Your task to perform on an android device: Add "lenovo thinkpad" to the cart on newegg Image 0: 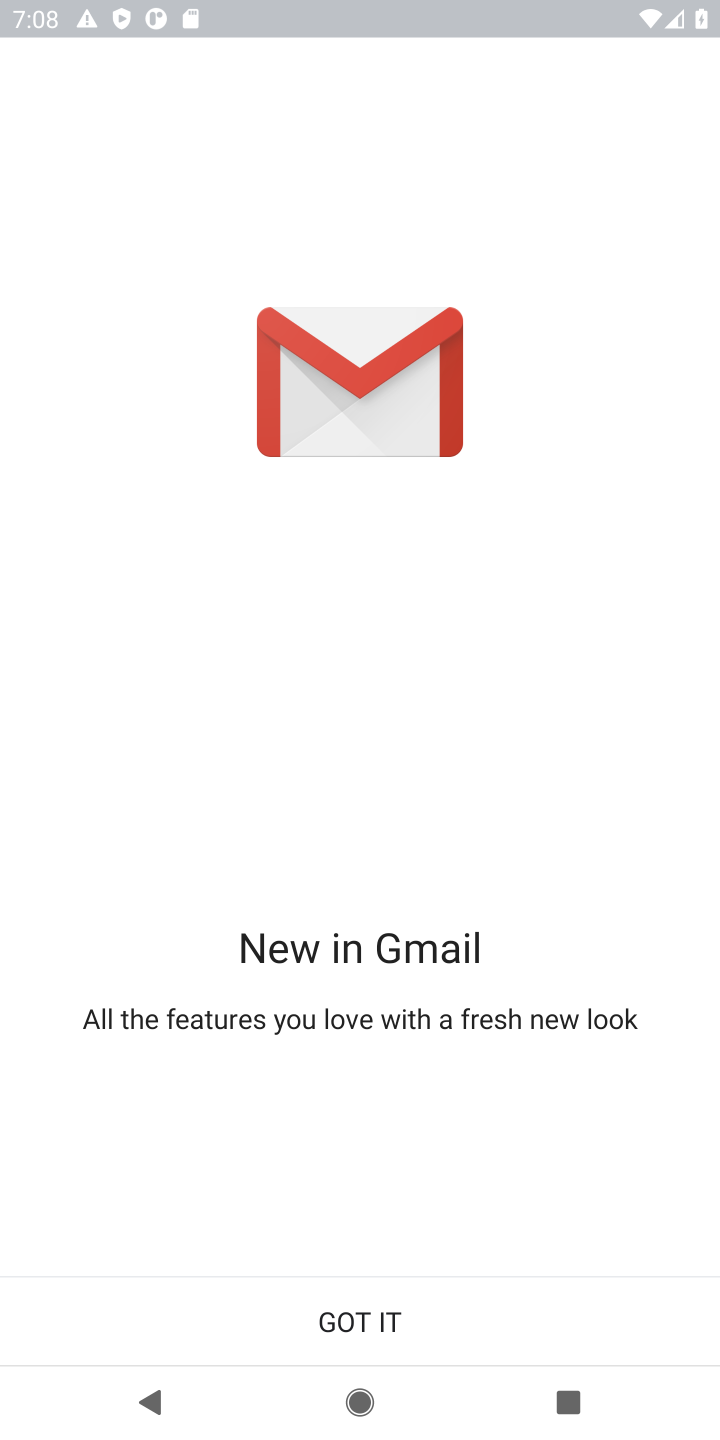
Step 0: press home button
Your task to perform on an android device: Add "lenovo thinkpad" to the cart on newegg Image 1: 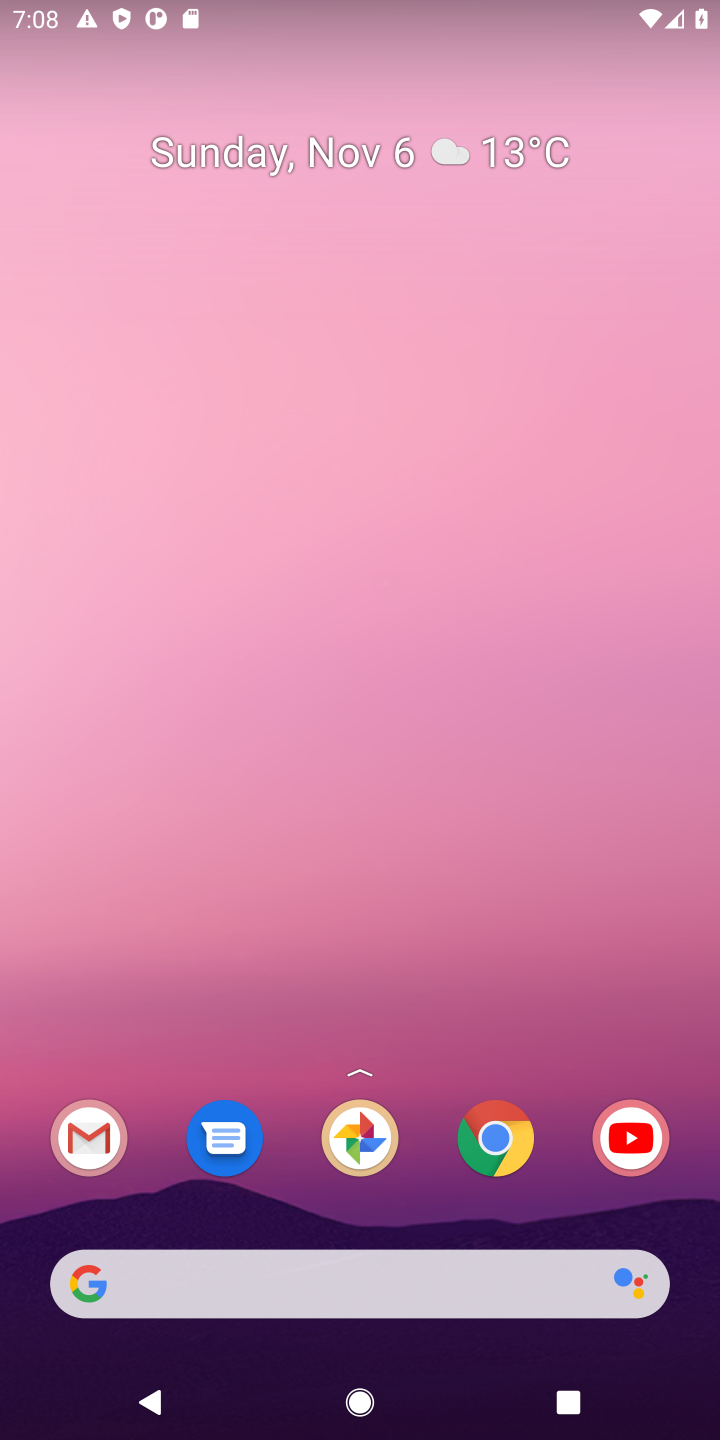
Step 1: click (486, 1121)
Your task to perform on an android device: Add "lenovo thinkpad" to the cart on newegg Image 2: 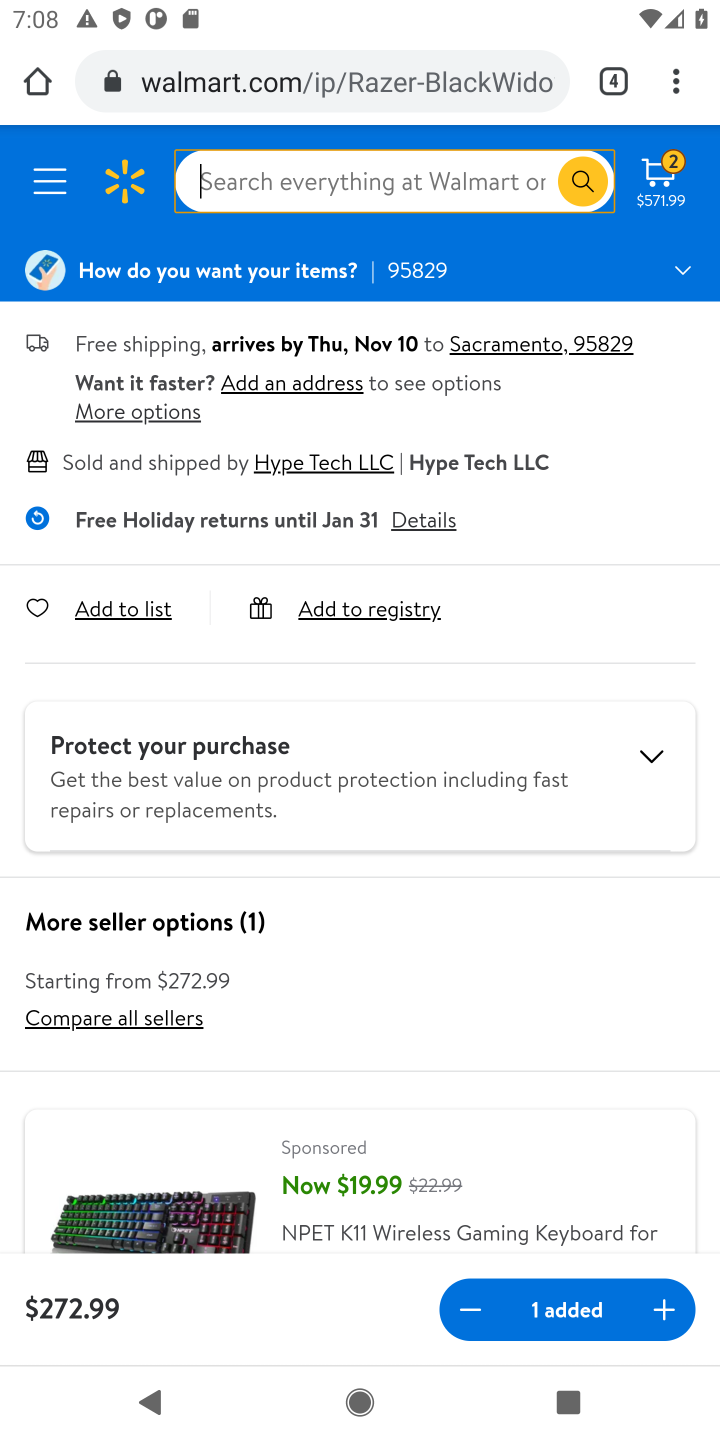
Step 2: click (590, 87)
Your task to perform on an android device: Add "lenovo thinkpad" to the cart on newegg Image 3: 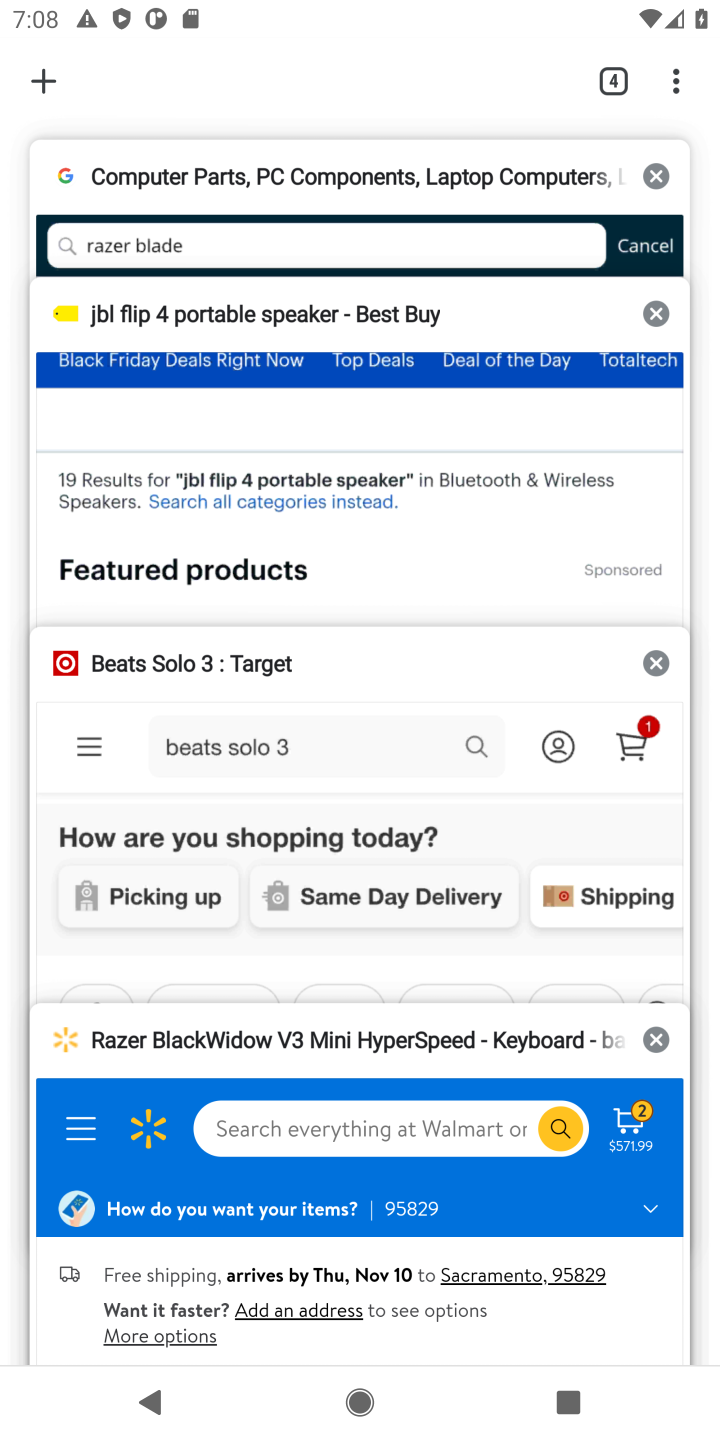
Step 3: click (38, 80)
Your task to perform on an android device: Add "lenovo thinkpad" to the cart on newegg Image 4: 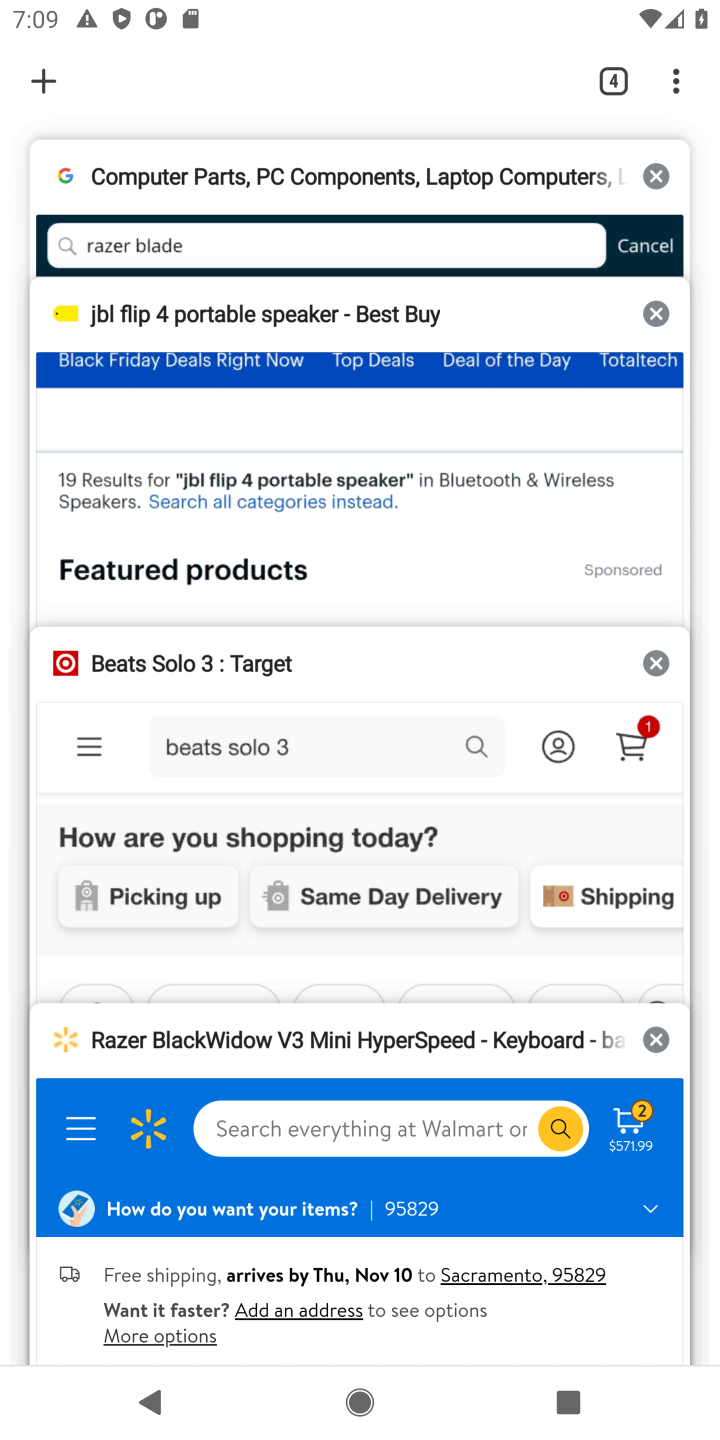
Step 4: click (56, 80)
Your task to perform on an android device: Add "lenovo thinkpad" to the cart on newegg Image 5: 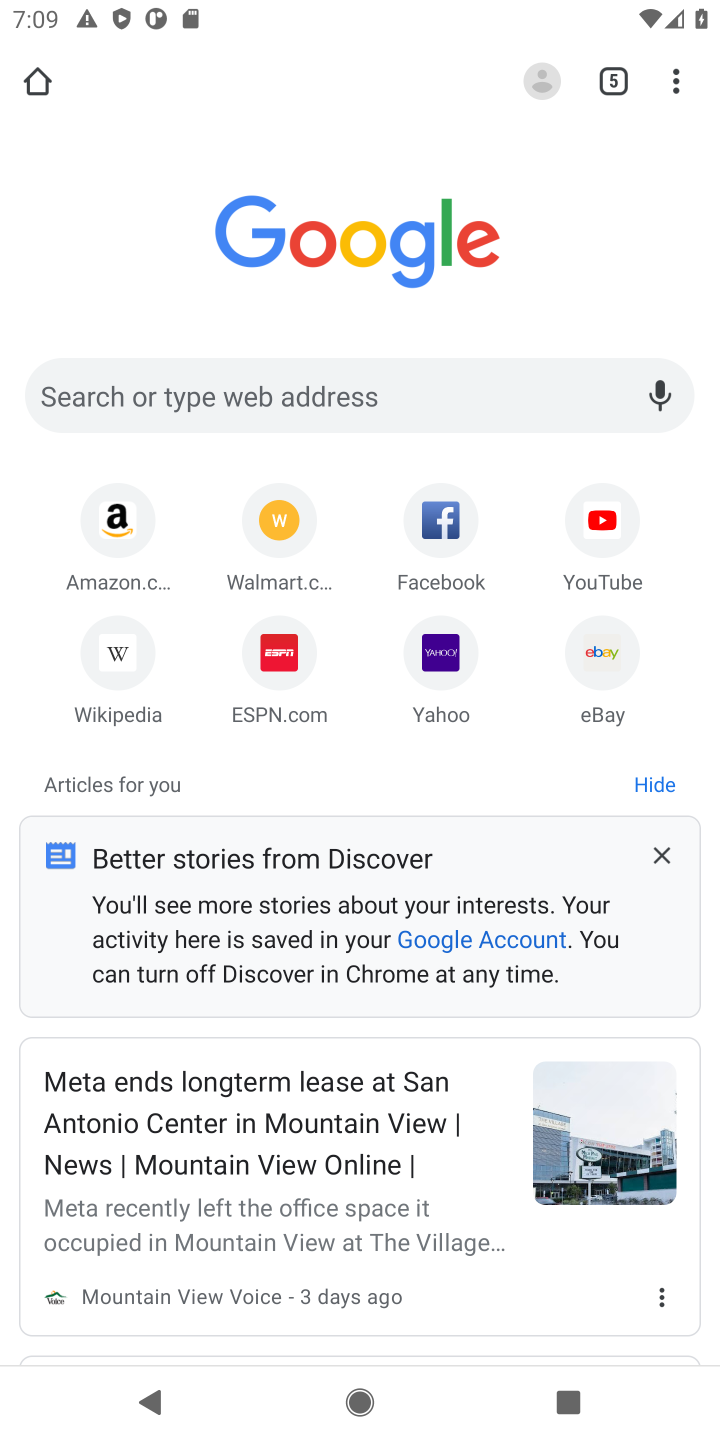
Step 5: click (267, 390)
Your task to perform on an android device: Add "lenovo thinkpad" to the cart on newegg Image 6: 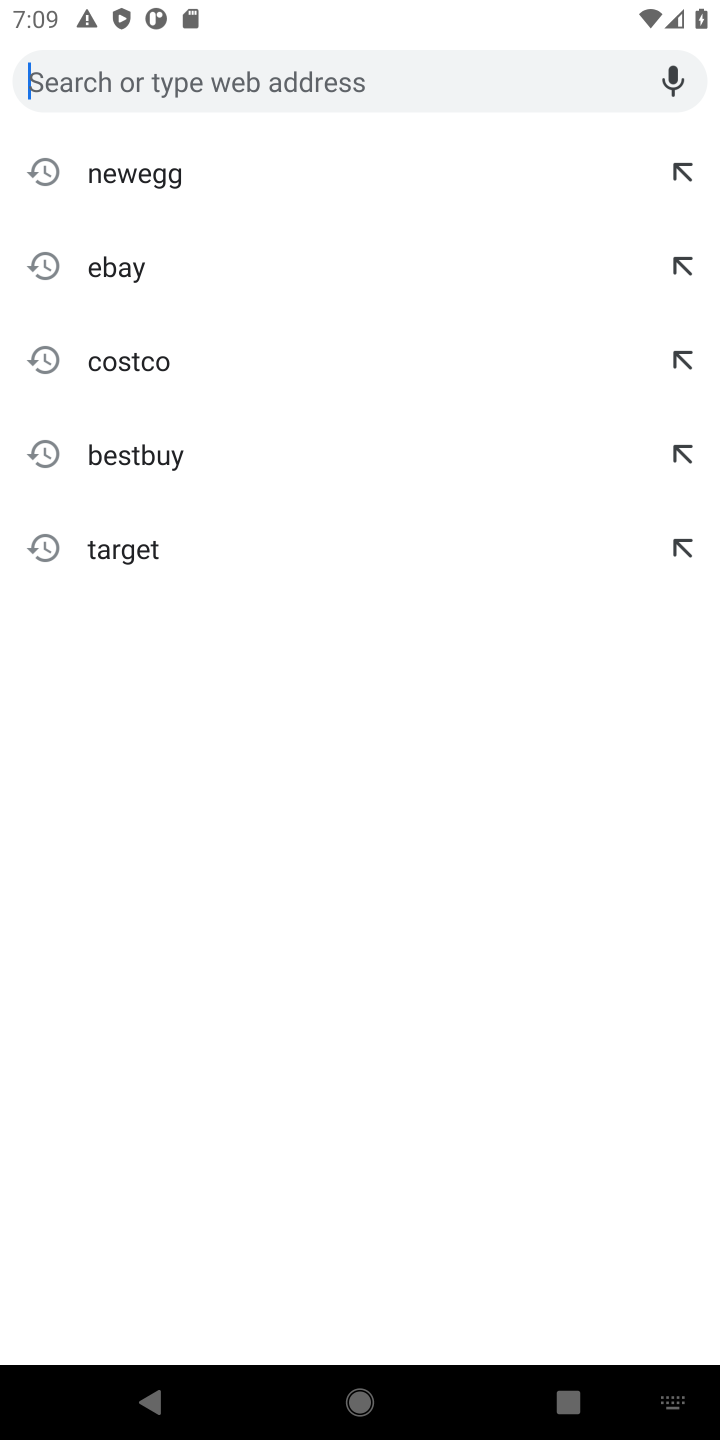
Step 6: click (126, 167)
Your task to perform on an android device: Add "lenovo thinkpad" to the cart on newegg Image 7: 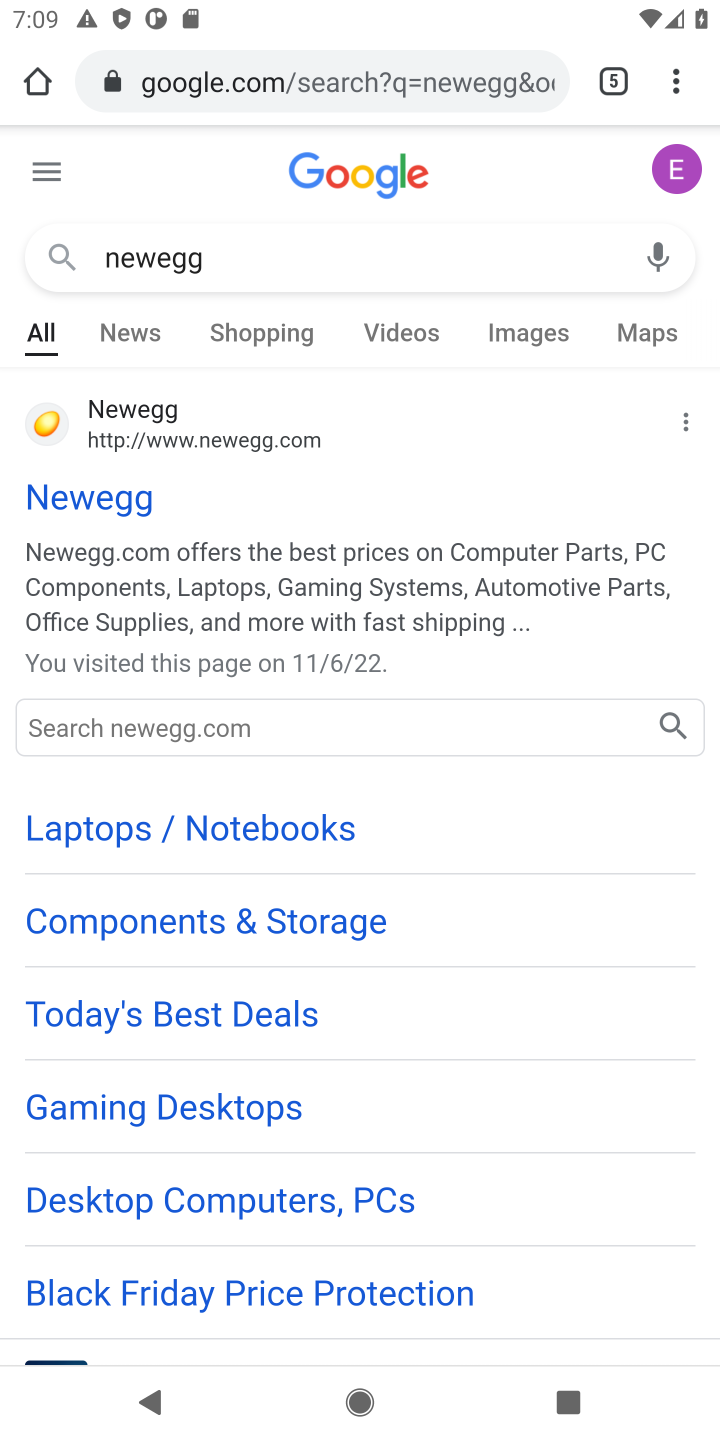
Step 7: click (57, 491)
Your task to perform on an android device: Add "lenovo thinkpad" to the cart on newegg Image 8: 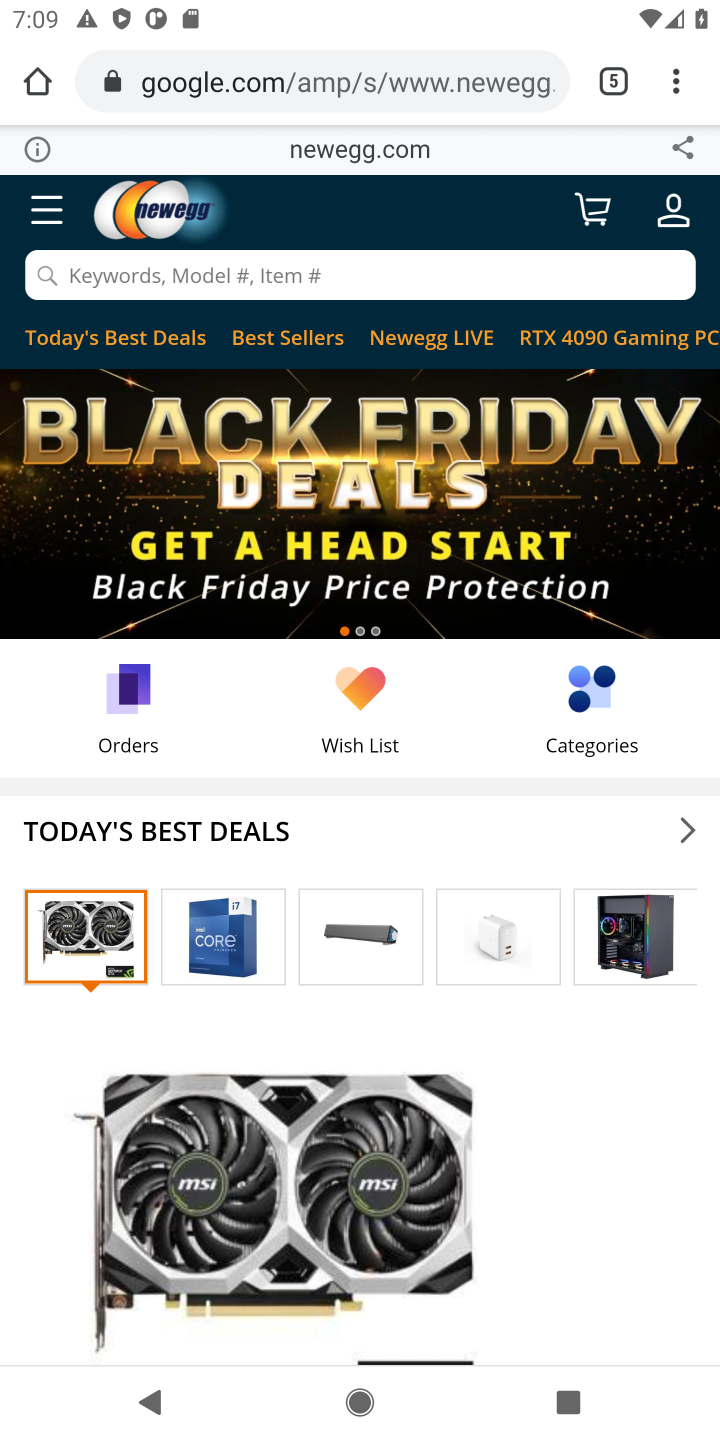
Step 8: click (311, 272)
Your task to perform on an android device: Add "lenovo thinkpad" to the cart on newegg Image 9: 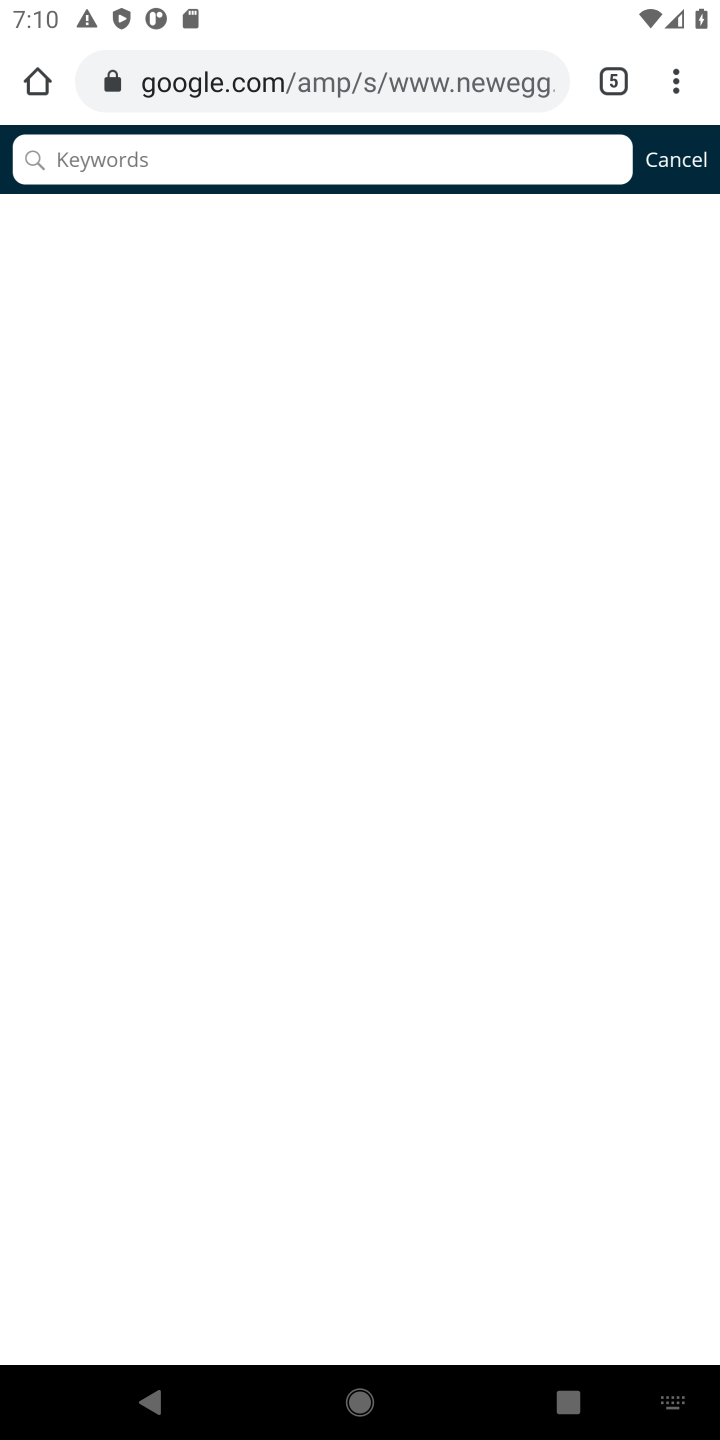
Step 9: click (251, 161)
Your task to perform on an android device: Add "lenovo thinkpad" to the cart on newegg Image 10: 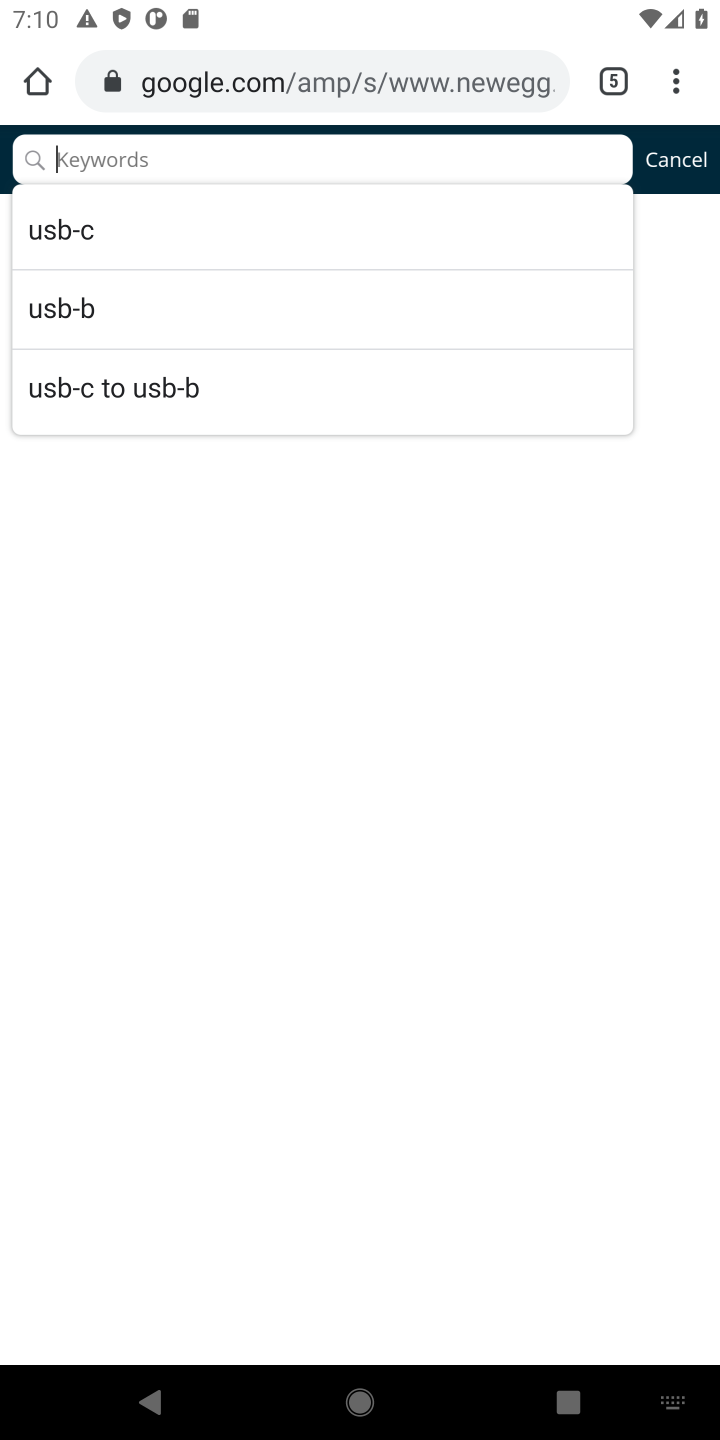
Step 10: type "lenovo thinkpad"
Your task to perform on an android device: Add "lenovo thinkpad" to the cart on newegg Image 11: 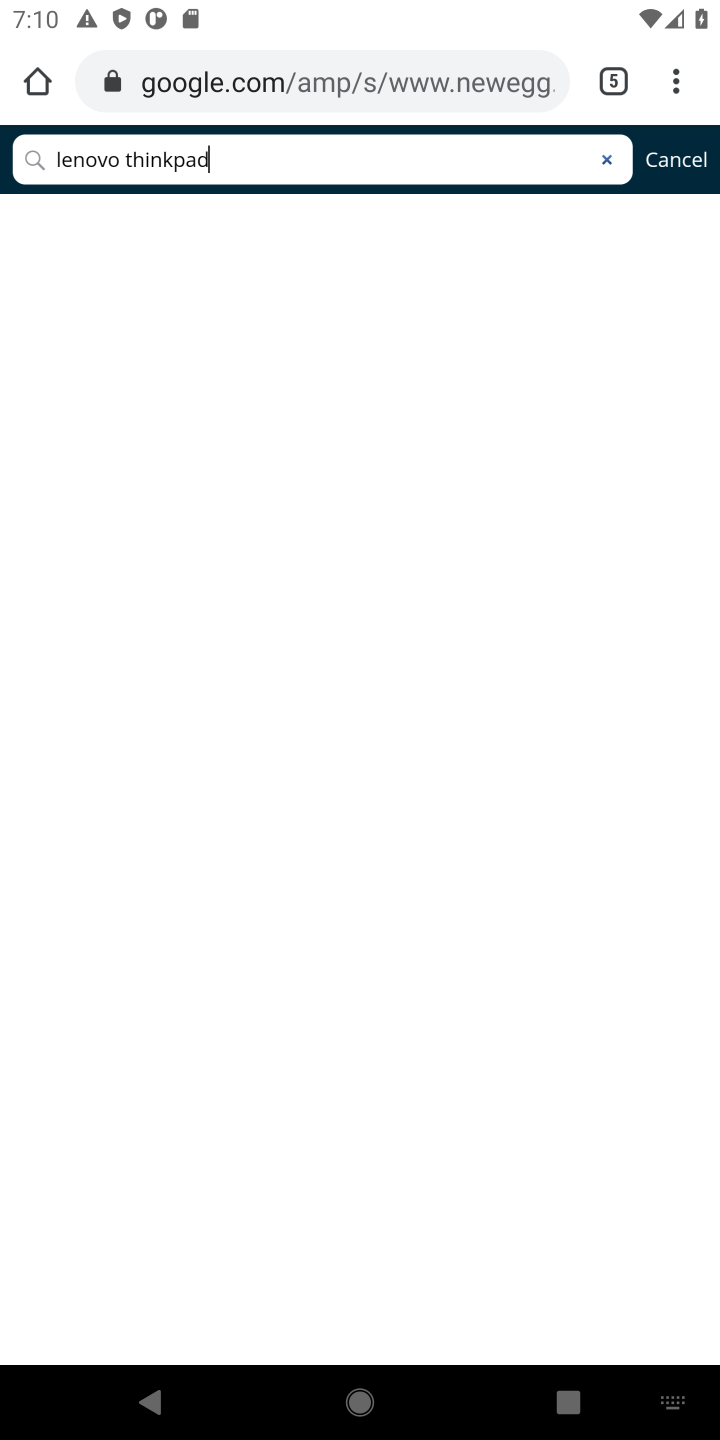
Step 11: task complete